Your task to perform on an android device: toggle priority inbox in the gmail app Image 0: 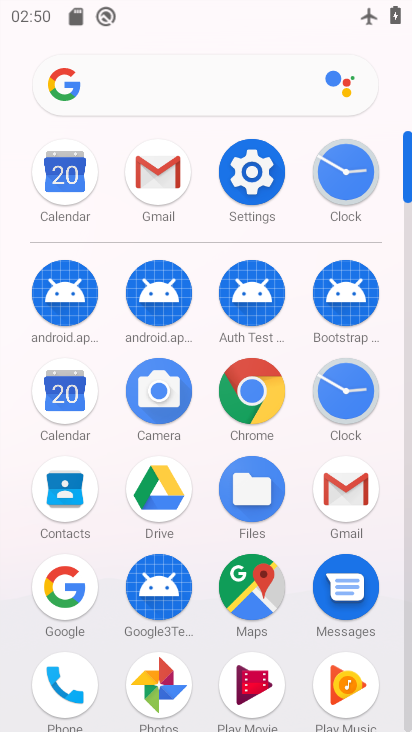
Step 0: click (357, 503)
Your task to perform on an android device: toggle priority inbox in the gmail app Image 1: 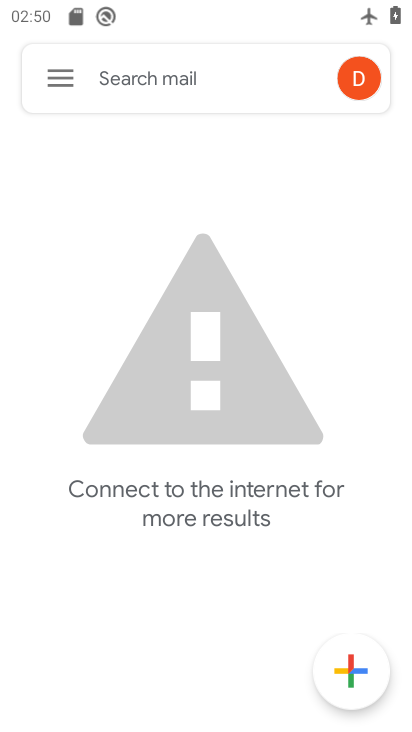
Step 1: click (56, 72)
Your task to perform on an android device: toggle priority inbox in the gmail app Image 2: 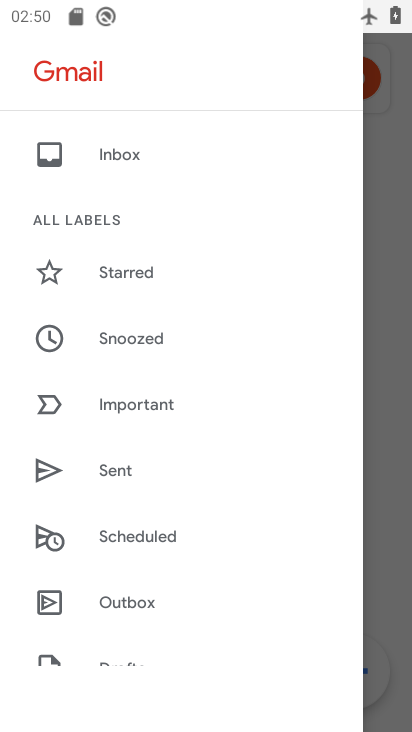
Step 2: drag from (174, 568) to (209, 299)
Your task to perform on an android device: toggle priority inbox in the gmail app Image 3: 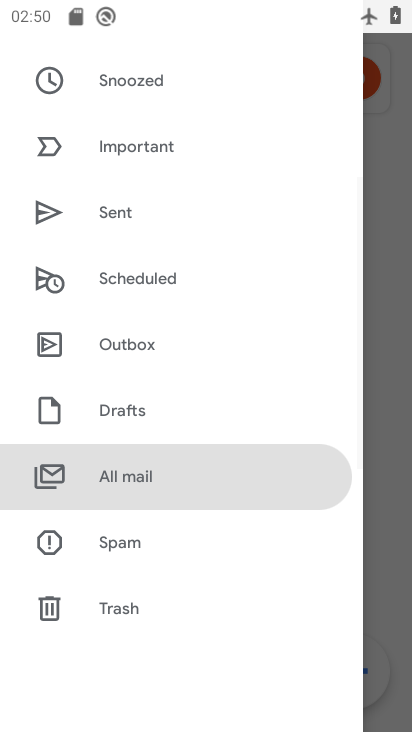
Step 3: drag from (167, 541) to (198, 259)
Your task to perform on an android device: toggle priority inbox in the gmail app Image 4: 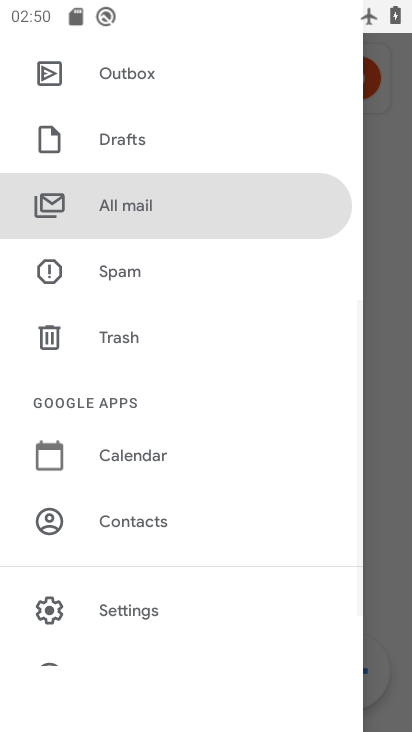
Step 4: click (164, 603)
Your task to perform on an android device: toggle priority inbox in the gmail app Image 5: 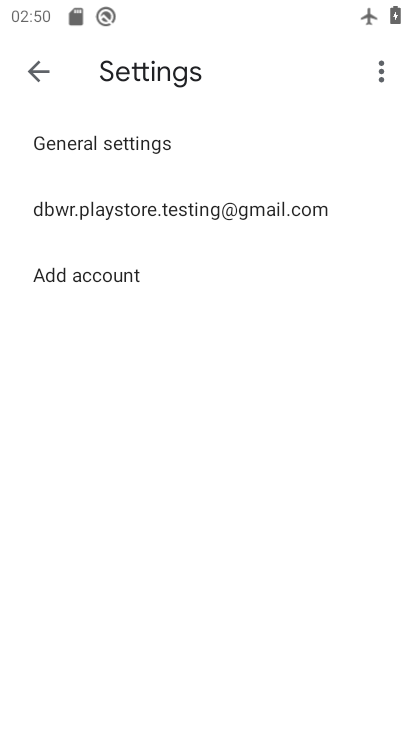
Step 5: click (236, 194)
Your task to perform on an android device: toggle priority inbox in the gmail app Image 6: 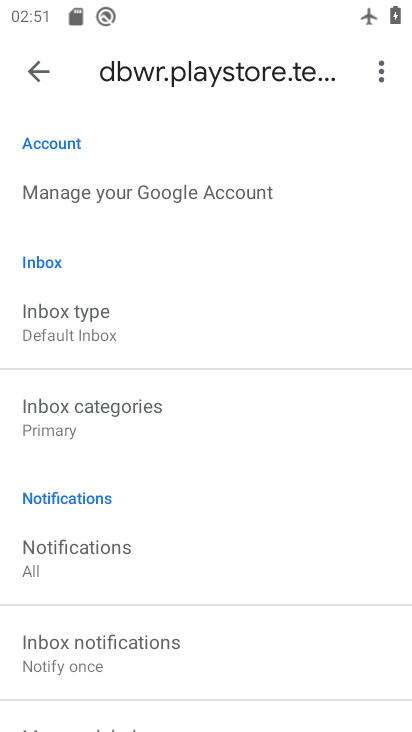
Step 6: click (171, 337)
Your task to perform on an android device: toggle priority inbox in the gmail app Image 7: 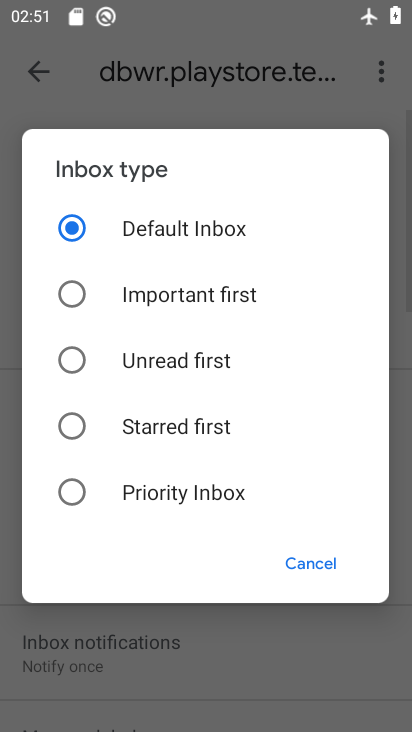
Step 7: click (127, 487)
Your task to perform on an android device: toggle priority inbox in the gmail app Image 8: 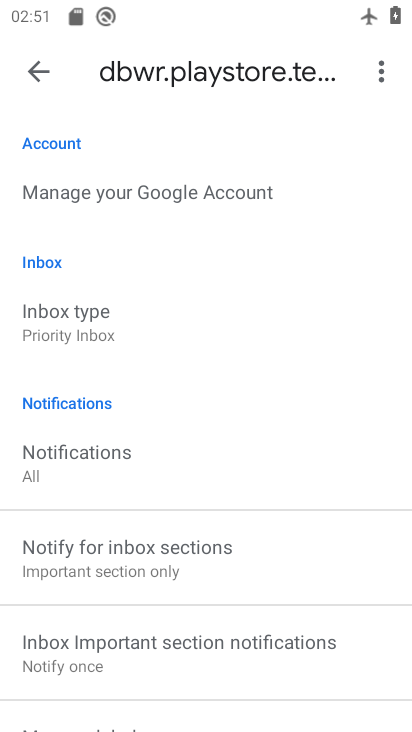
Step 8: task complete